Your task to perform on an android device: turn off wifi Image 0: 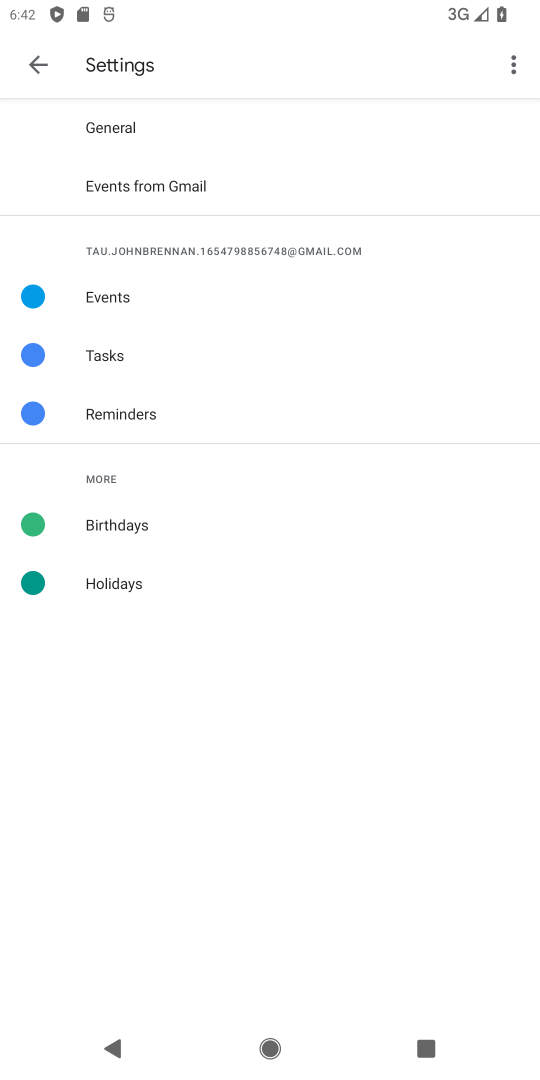
Step 0: press home button
Your task to perform on an android device: turn off wifi Image 1: 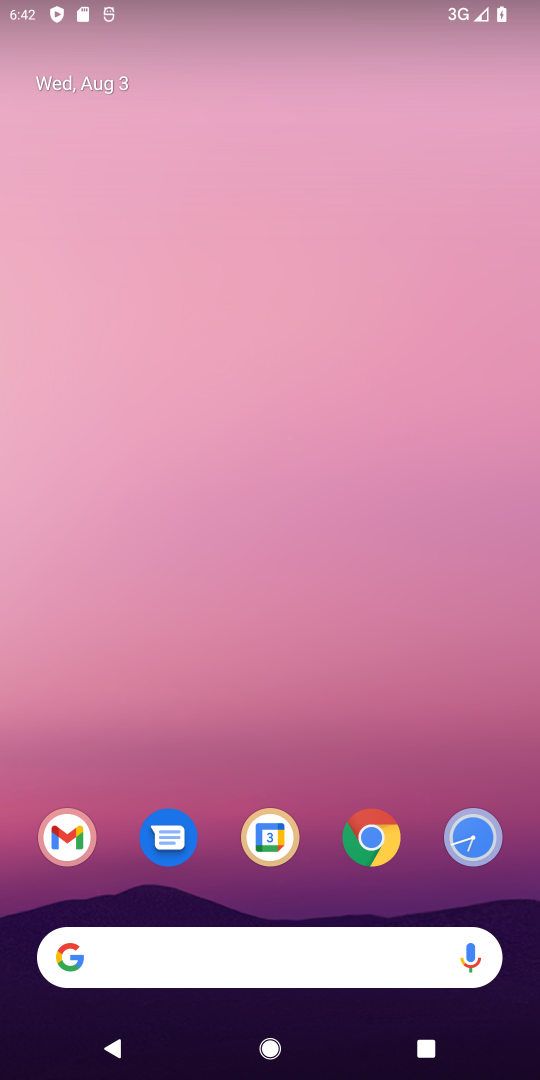
Step 1: drag from (363, 756) to (518, 0)
Your task to perform on an android device: turn off wifi Image 2: 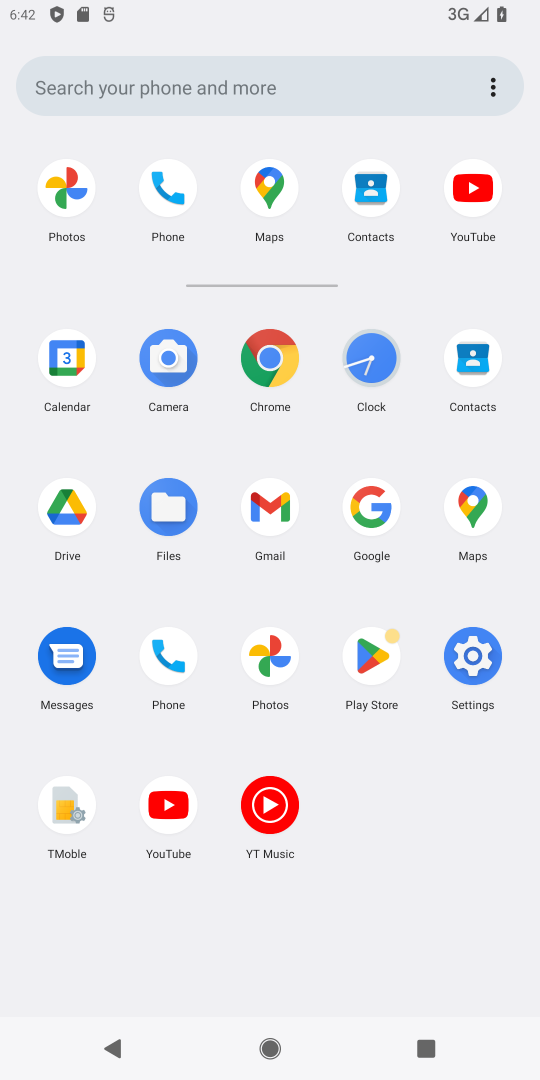
Step 2: click (489, 653)
Your task to perform on an android device: turn off wifi Image 3: 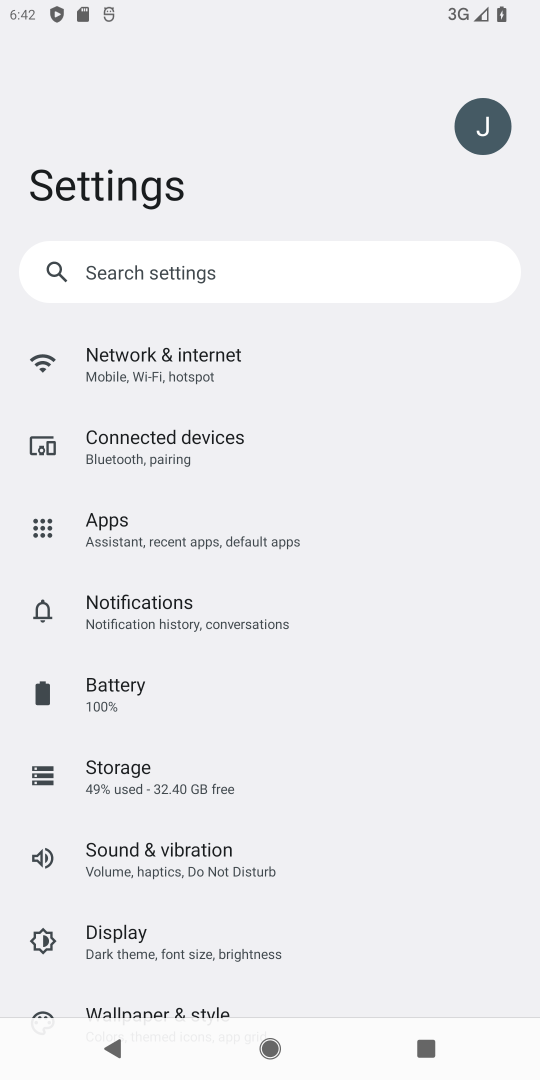
Step 3: click (220, 375)
Your task to perform on an android device: turn off wifi Image 4: 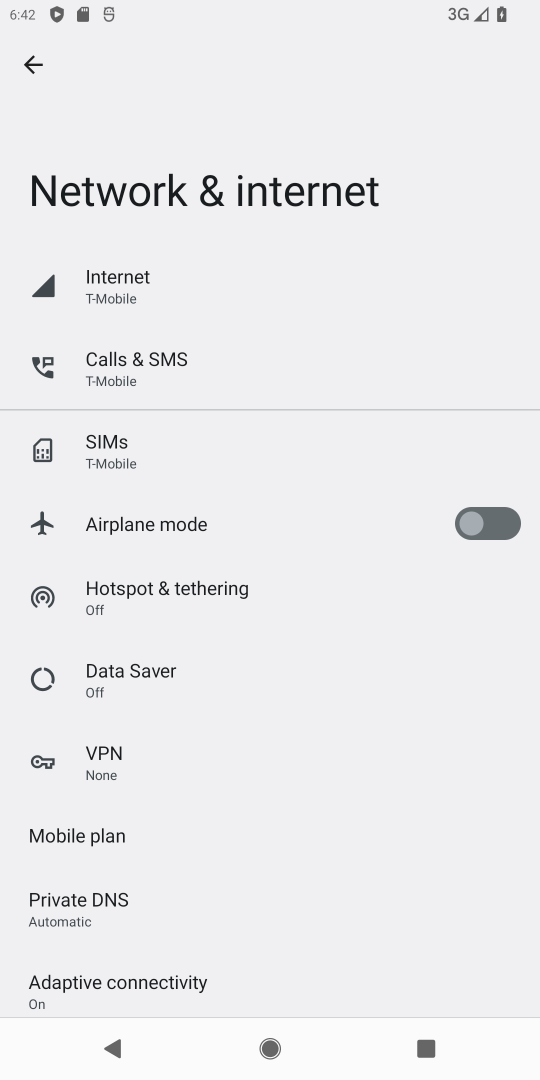
Step 4: click (138, 288)
Your task to perform on an android device: turn off wifi Image 5: 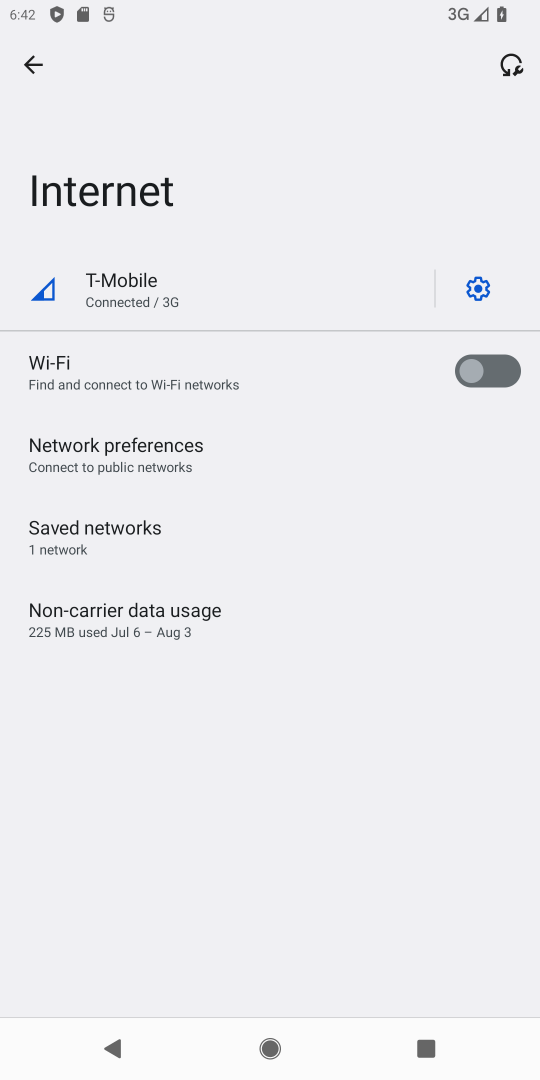
Step 5: task complete